Your task to perform on an android device: open app "DuckDuckGo Privacy Browser" (install if not already installed) and enter user name: "cleaving@outlook.com" and password: "freighters" Image 0: 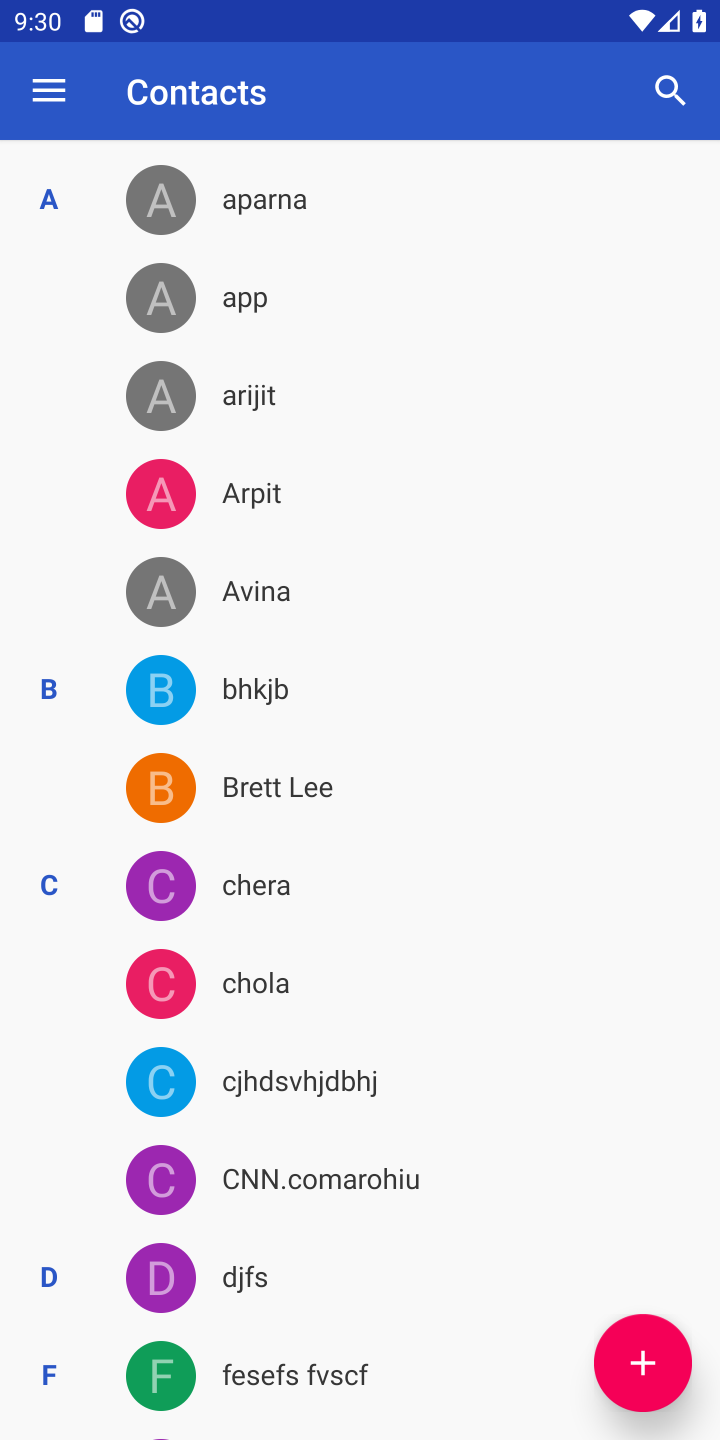
Step 0: press home button
Your task to perform on an android device: open app "DuckDuckGo Privacy Browser" (install if not already installed) and enter user name: "cleaving@outlook.com" and password: "freighters" Image 1: 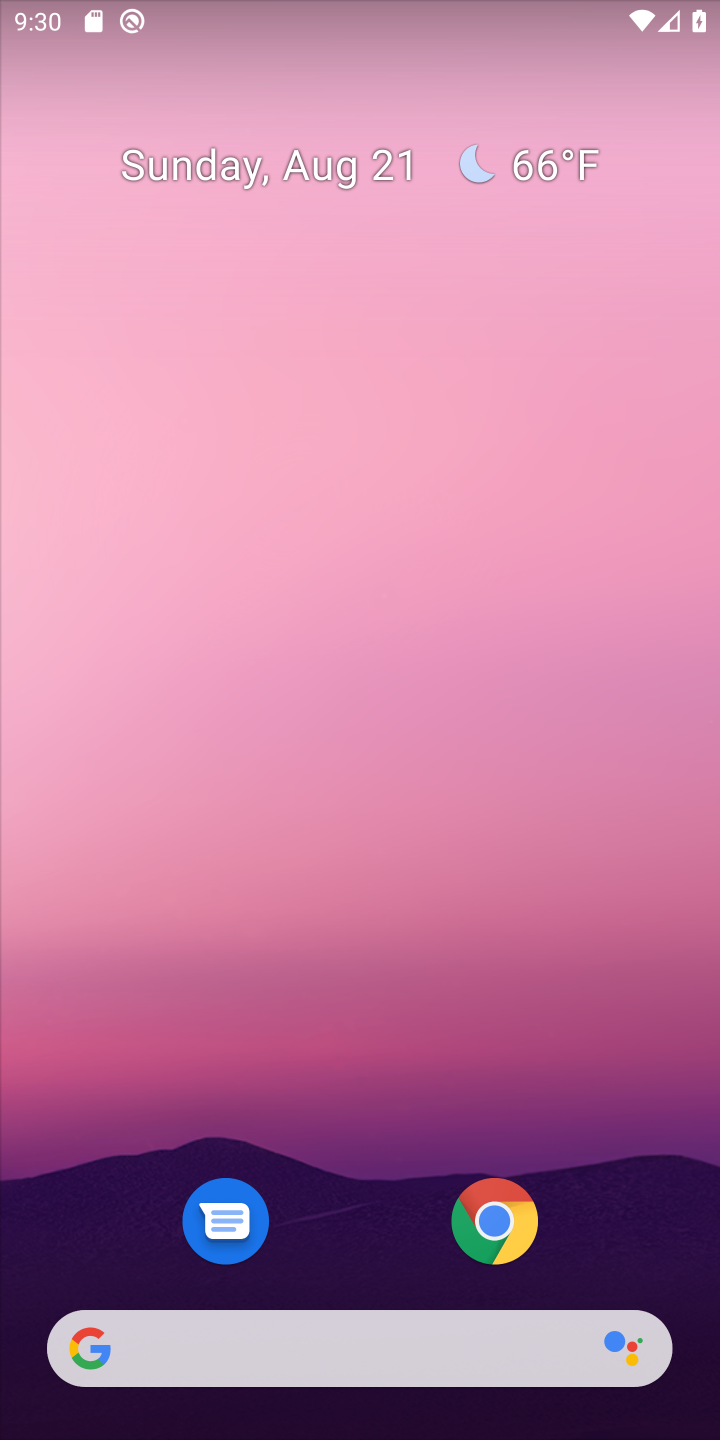
Step 1: drag from (375, 1178) to (370, 257)
Your task to perform on an android device: open app "DuckDuckGo Privacy Browser" (install if not already installed) and enter user name: "cleaving@outlook.com" and password: "freighters" Image 2: 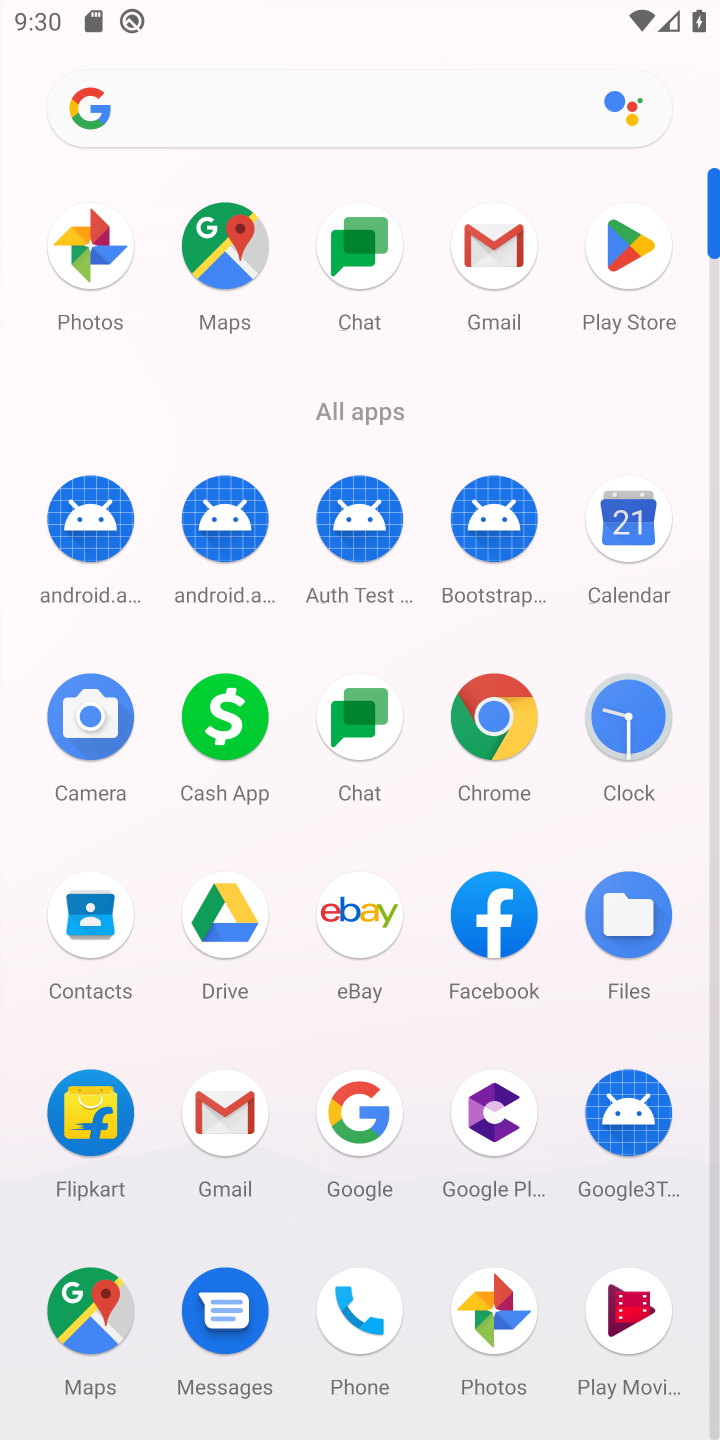
Step 2: click (605, 253)
Your task to perform on an android device: open app "DuckDuckGo Privacy Browser" (install if not already installed) and enter user name: "cleaving@outlook.com" and password: "freighters" Image 3: 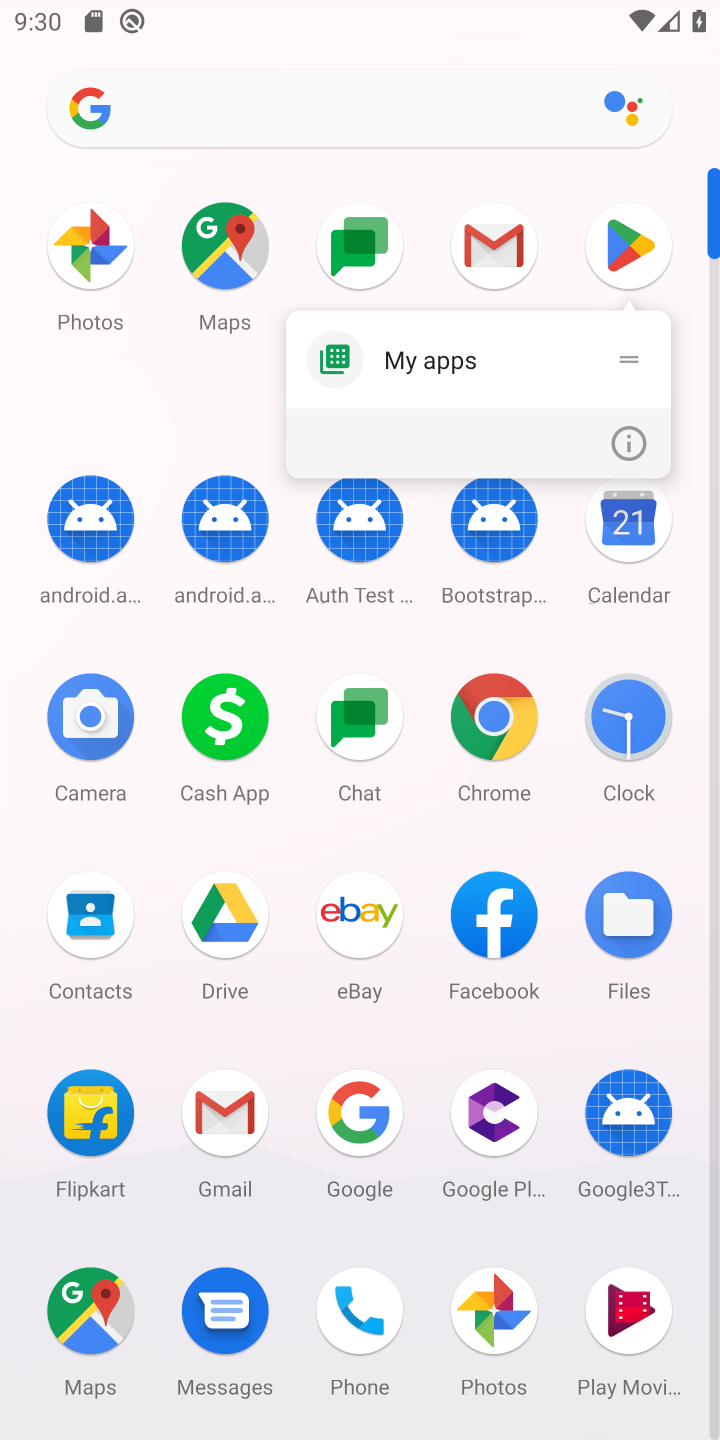
Step 3: click (608, 251)
Your task to perform on an android device: open app "DuckDuckGo Privacy Browser" (install if not already installed) and enter user name: "cleaving@outlook.com" and password: "freighters" Image 4: 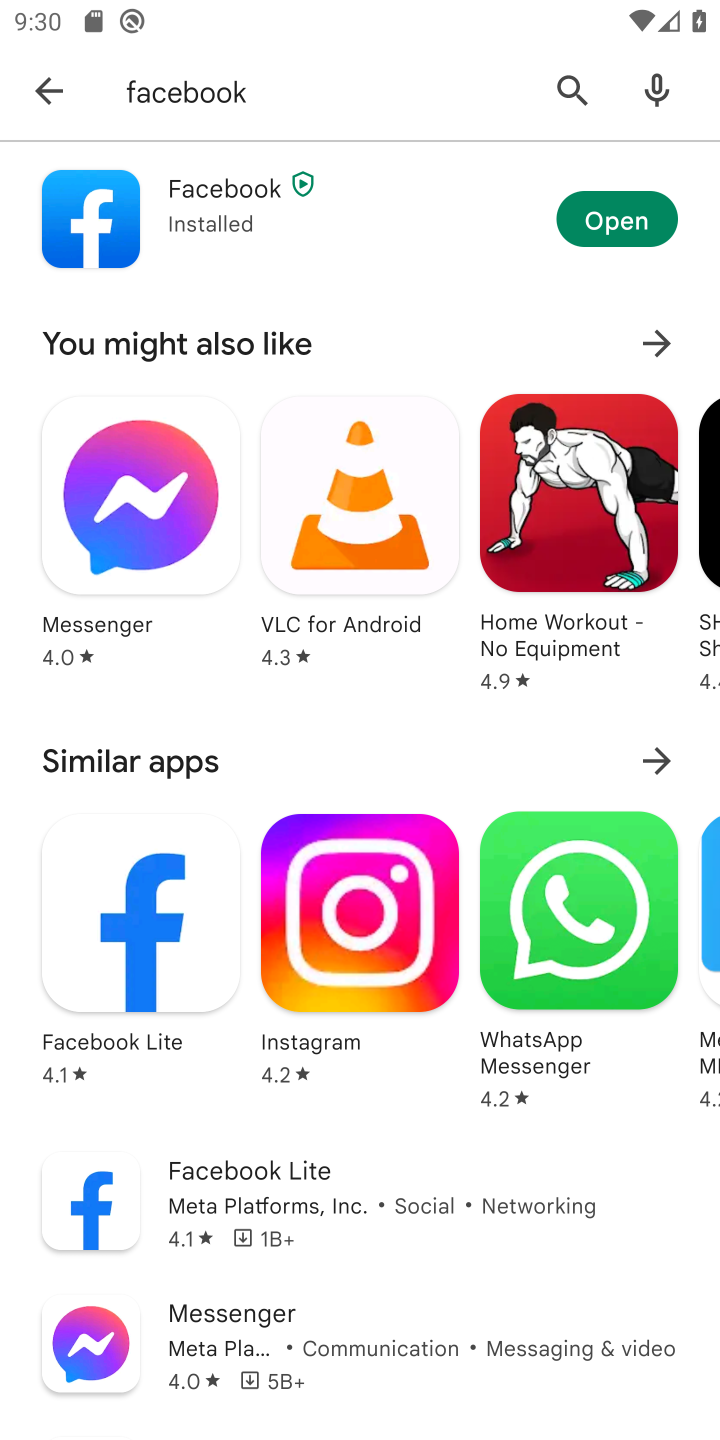
Step 4: click (602, 88)
Your task to perform on an android device: open app "DuckDuckGo Privacy Browser" (install if not already installed) and enter user name: "cleaving@outlook.com" and password: "freighters" Image 5: 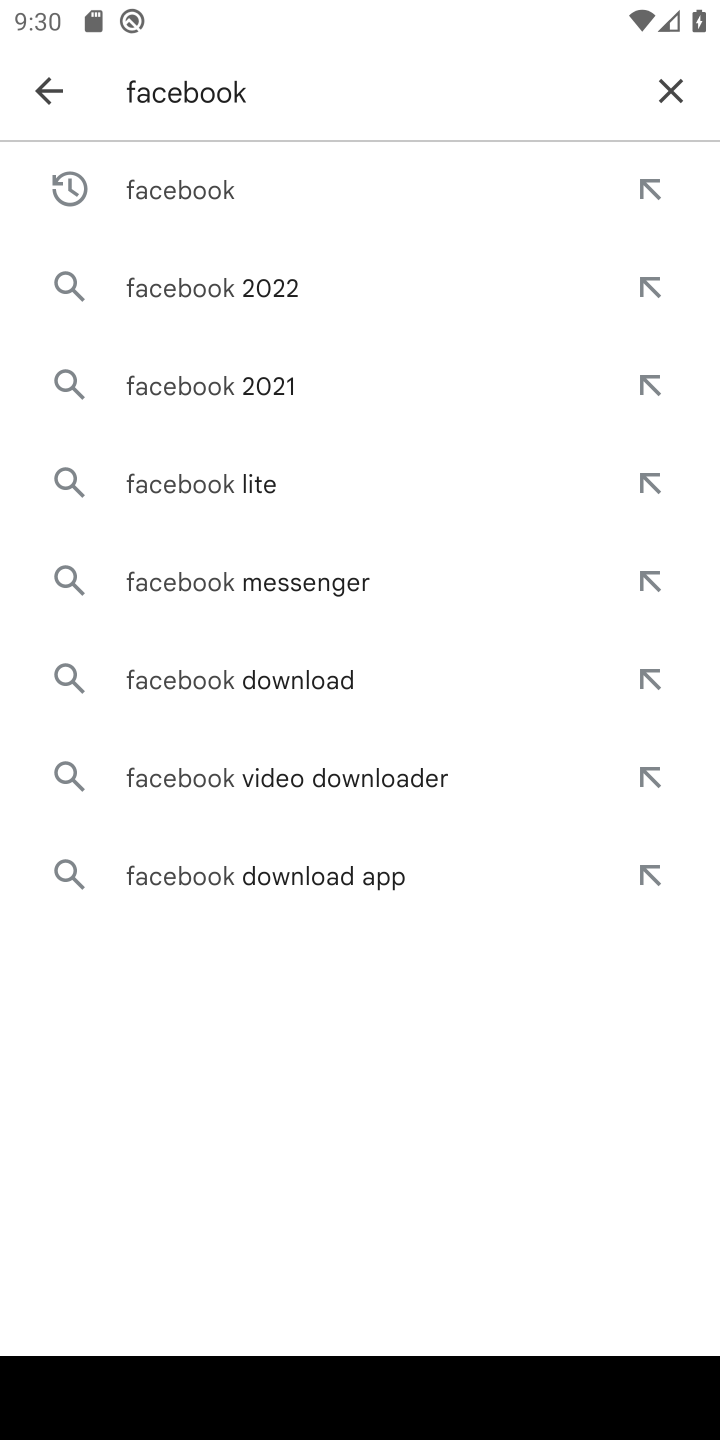
Step 5: click (676, 88)
Your task to perform on an android device: open app "DuckDuckGo Privacy Browser" (install if not already installed) and enter user name: "cleaving@outlook.com" and password: "freighters" Image 6: 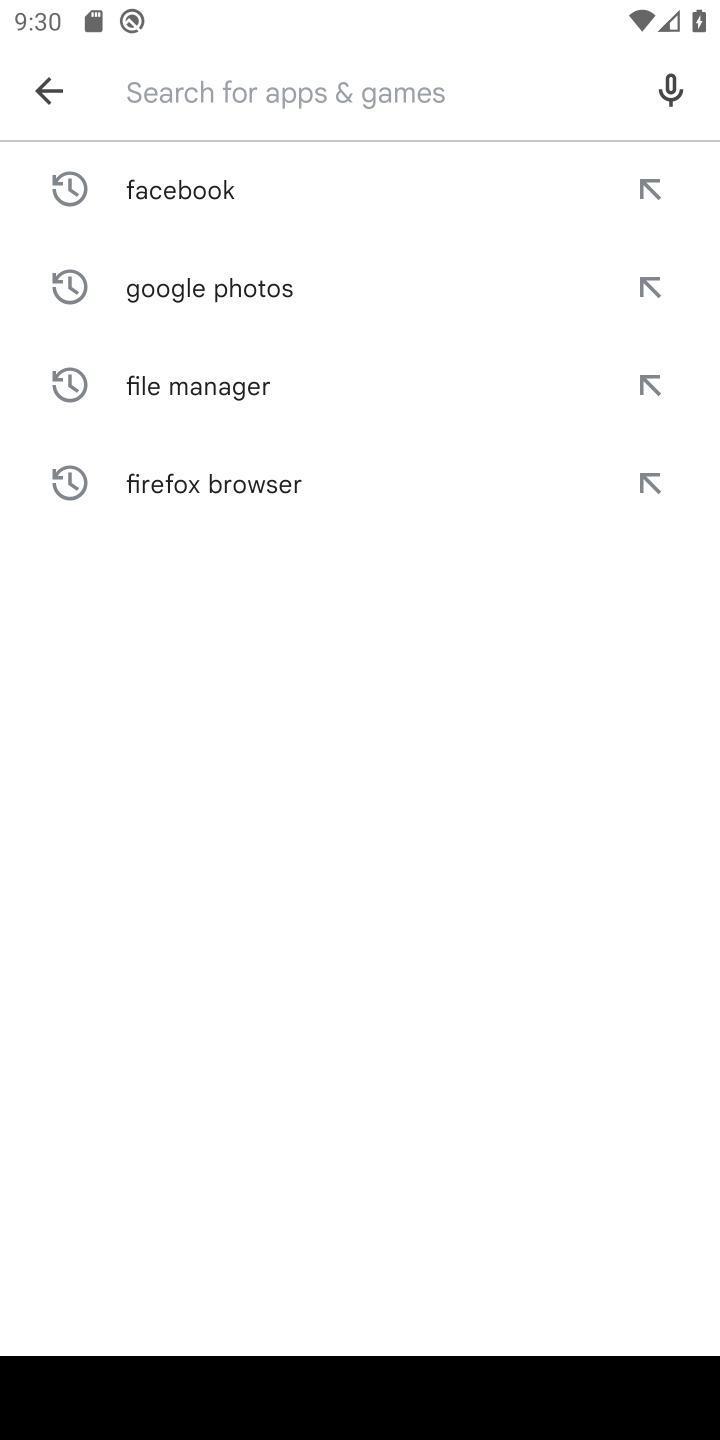
Step 6: type "DuckDuckGo Privacy Browser"
Your task to perform on an android device: open app "DuckDuckGo Privacy Browser" (install if not already installed) and enter user name: "cleaving@outlook.com" and password: "freighters" Image 7: 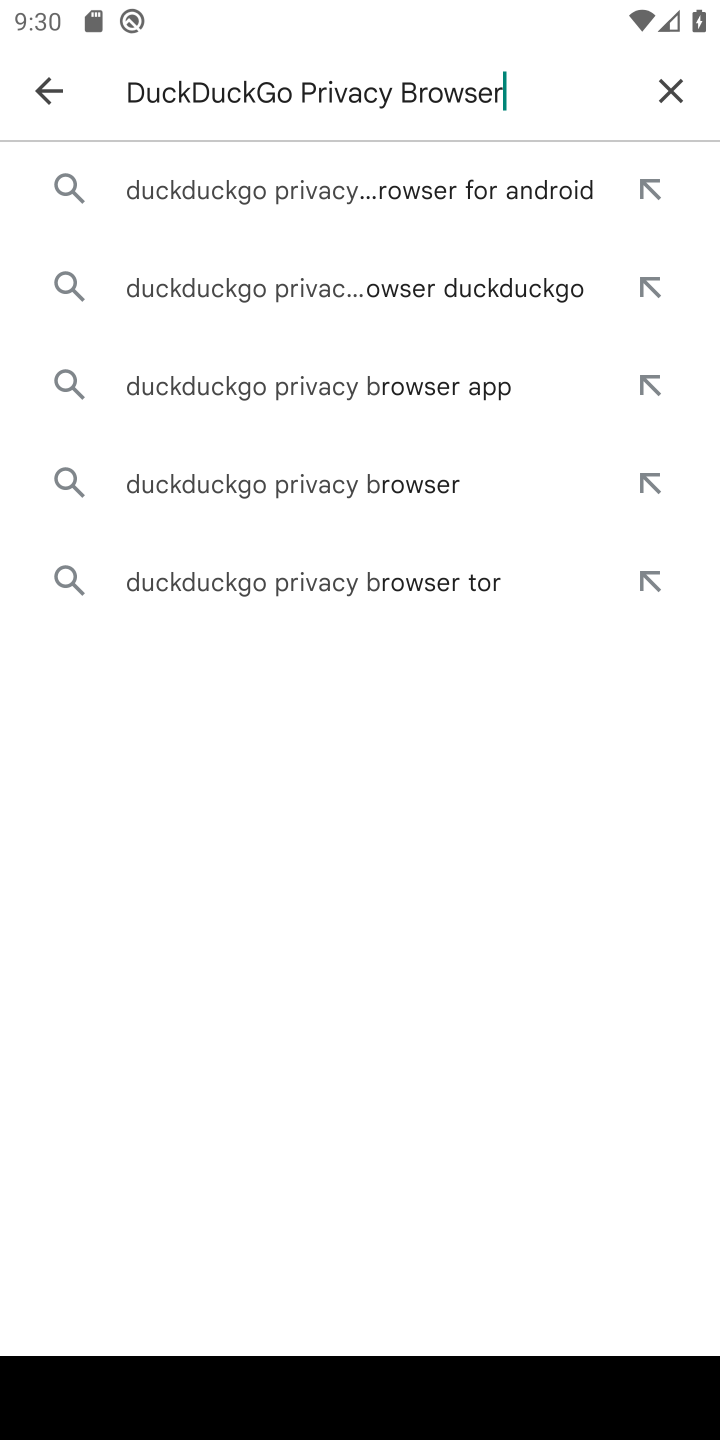
Step 7: type ""
Your task to perform on an android device: open app "DuckDuckGo Privacy Browser" (install if not already installed) and enter user name: "cleaving@outlook.com" and password: "freighters" Image 8: 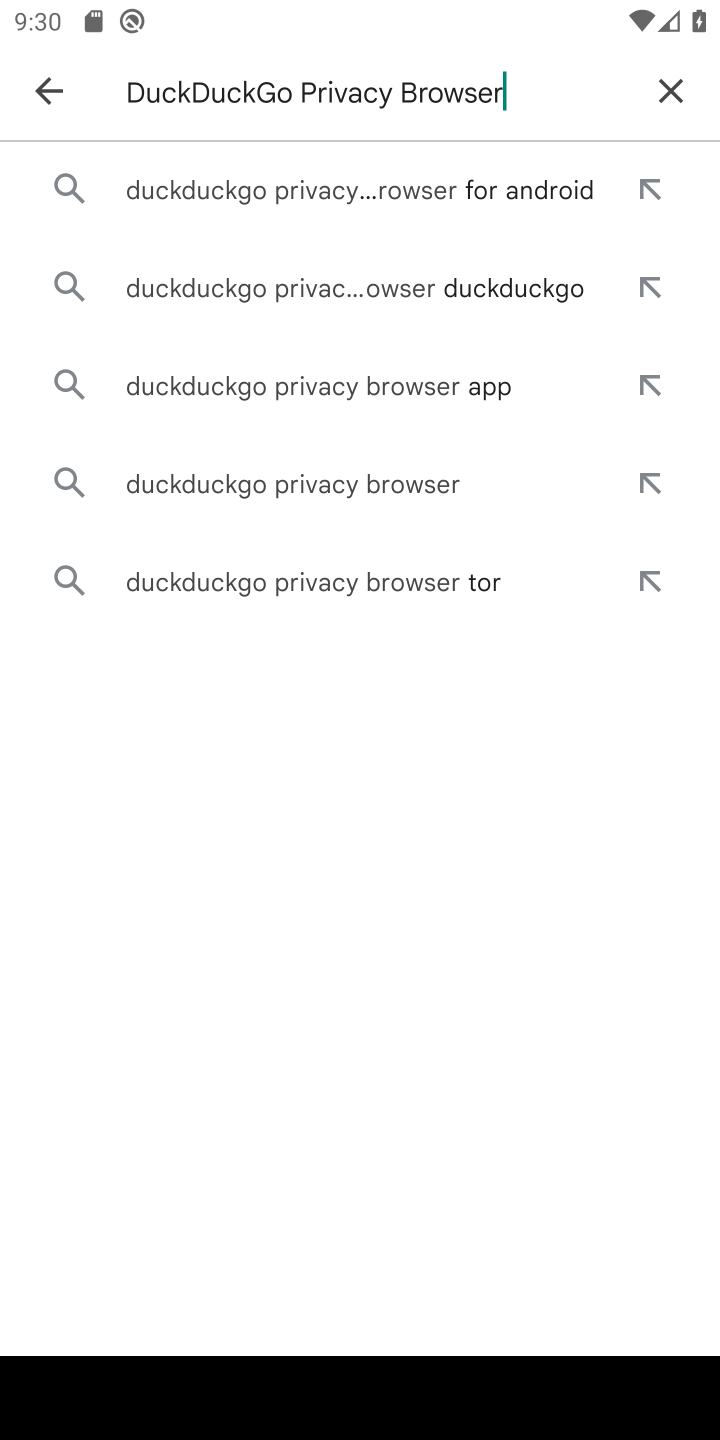
Step 8: click (218, 205)
Your task to perform on an android device: open app "DuckDuckGo Privacy Browser" (install if not already installed) and enter user name: "cleaving@outlook.com" and password: "freighters" Image 9: 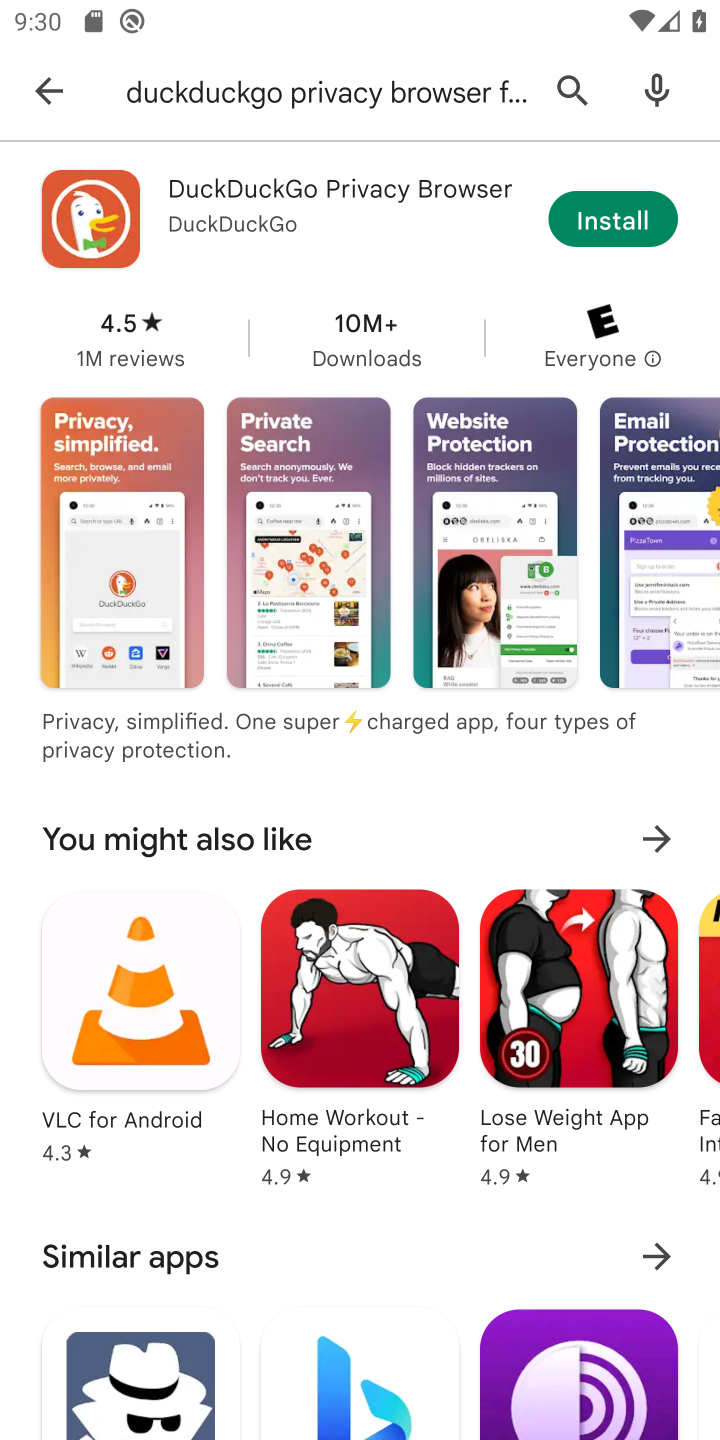
Step 9: click (603, 229)
Your task to perform on an android device: open app "DuckDuckGo Privacy Browser" (install if not already installed) and enter user name: "cleaving@outlook.com" and password: "freighters" Image 10: 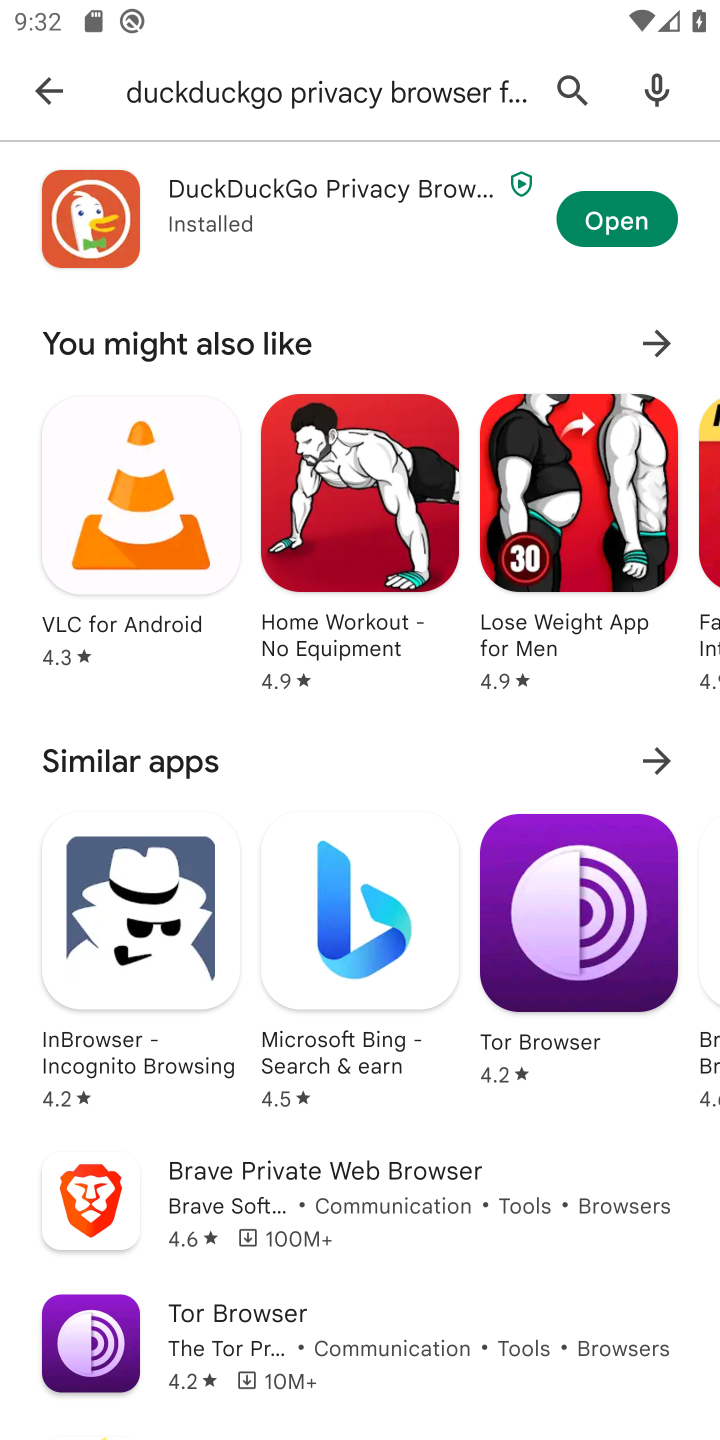
Step 10: click (616, 214)
Your task to perform on an android device: open app "DuckDuckGo Privacy Browser" (install if not already installed) and enter user name: "cleaving@outlook.com" and password: "freighters" Image 11: 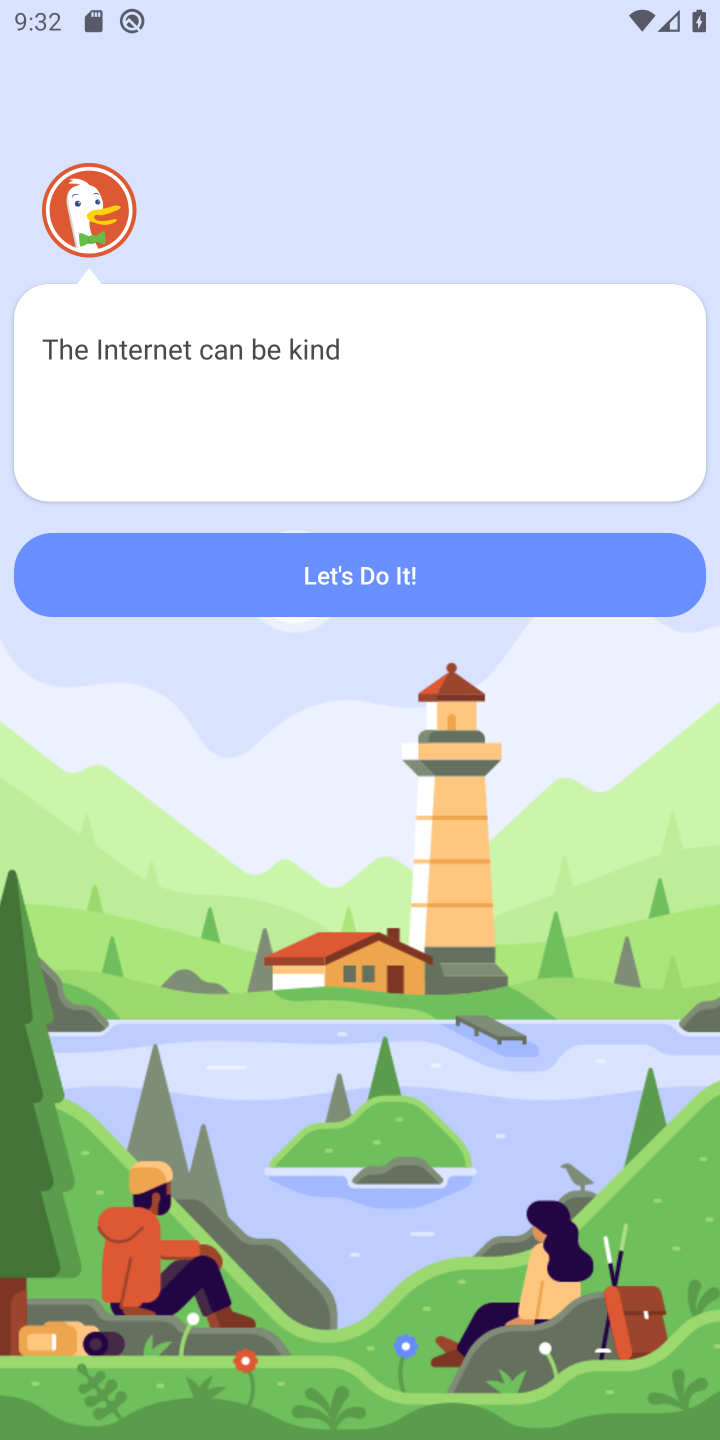
Step 11: task complete